Your task to perform on an android device: Open calendar and show me the first week of next month Image 0: 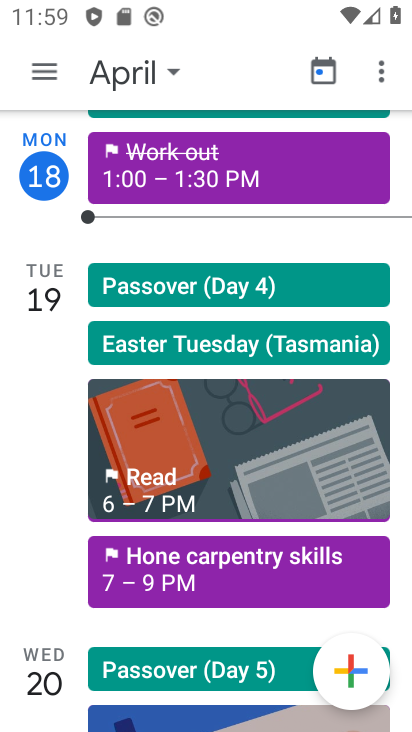
Step 0: press home button
Your task to perform on an android device: Open calendar and show me the first week of next month Image 1: 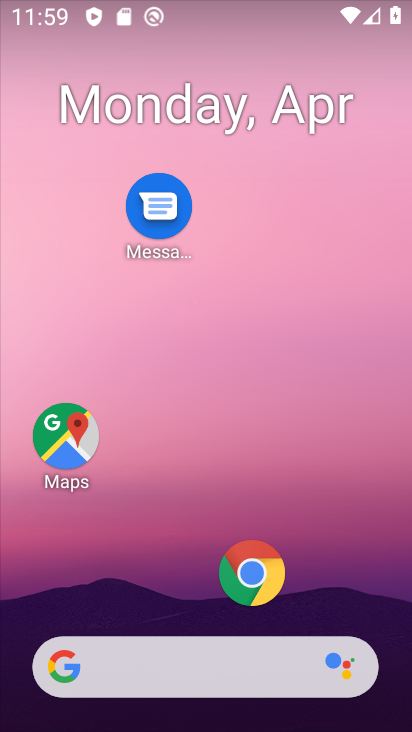
Step 1: drag from (206, 616) to (161, 31)
Your task to perform on an android device: Open calendar and show me the first week of next month Image 2: 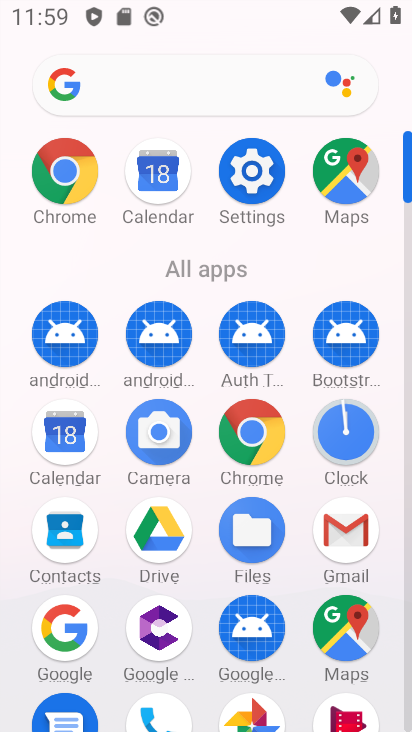
Step 2: click (58, 440)
Your task to perform on an android device: Open calendar and show me the first week of next month Image 3: 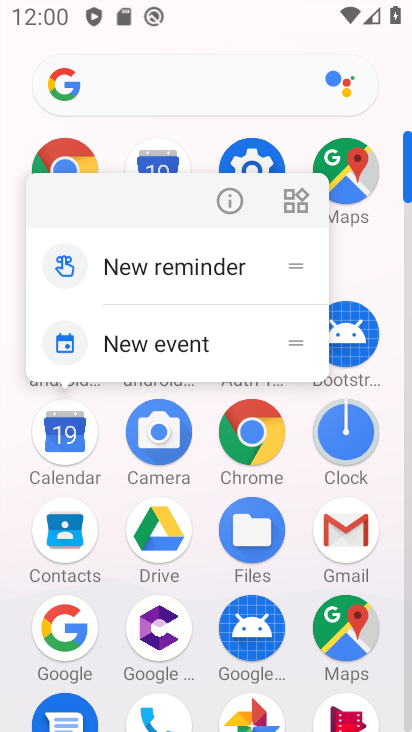
Step 3: click (58, 440)
Your task to perform on an android device: Open calendar and show me the first week of next month Image 4: 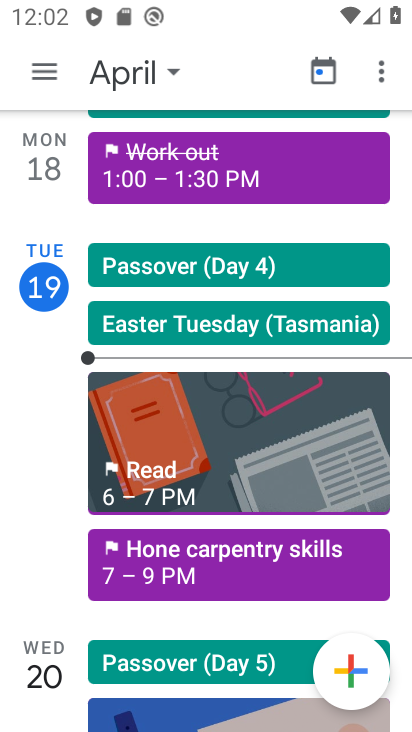
Step 4: click (35, 58)
Your task to perform on an android device: Open calendar and show me the first week of next month Image 5: 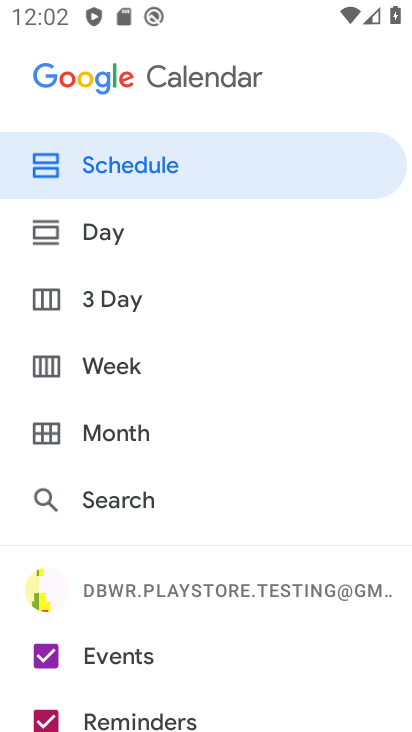
Step 5: click (133, 348)
Your task to perform on an android device: Open calendar and show me the first week of next month Image 6: 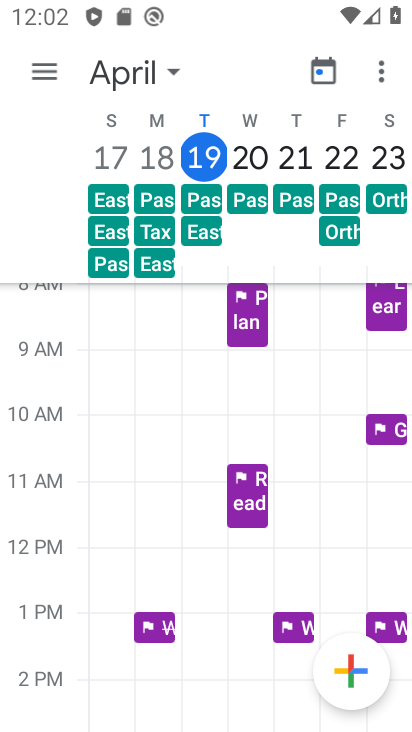
Step 6: task complete